Your task to perform on an android device: toggle javascript in the chrome app Image 0: 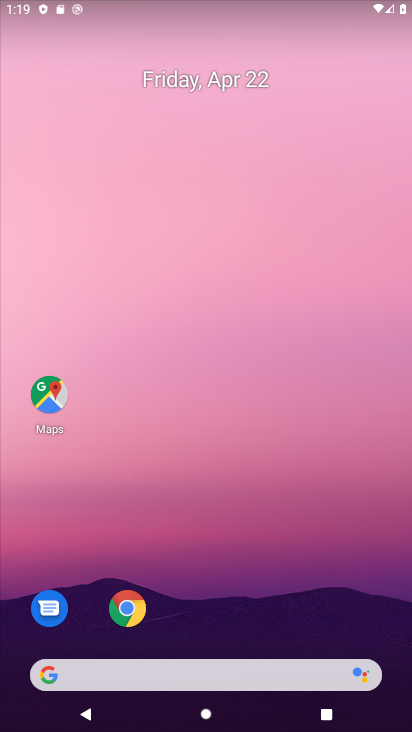
Step 0: drag from (272, 695) to (366, 210)
Your task to perform on an android device: toggle javascript in the chrome app Image 1: 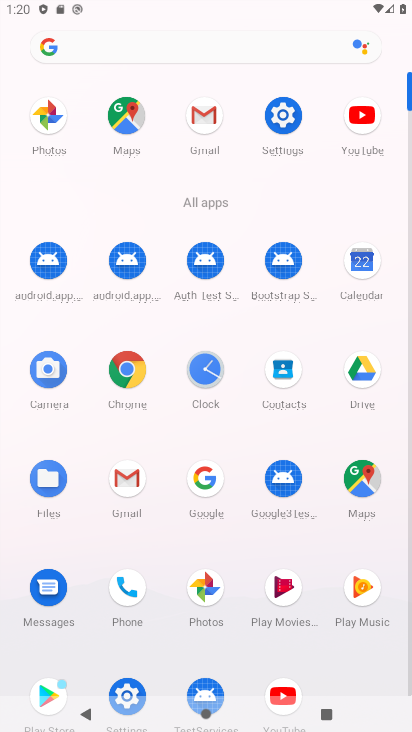
Step 1: click (127, 361)
Your task to perform on an android device: toggle javascript in the chrome app Image 2: 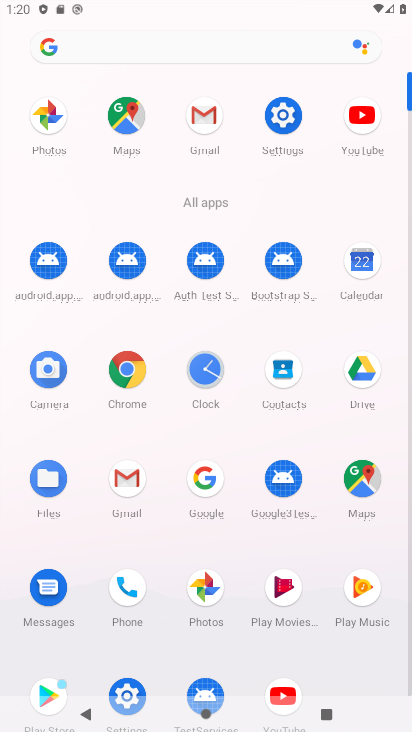
Step 2: click (120, 365)
Your task to perform on an android device: toggle javascript in the chrome app Image 3: 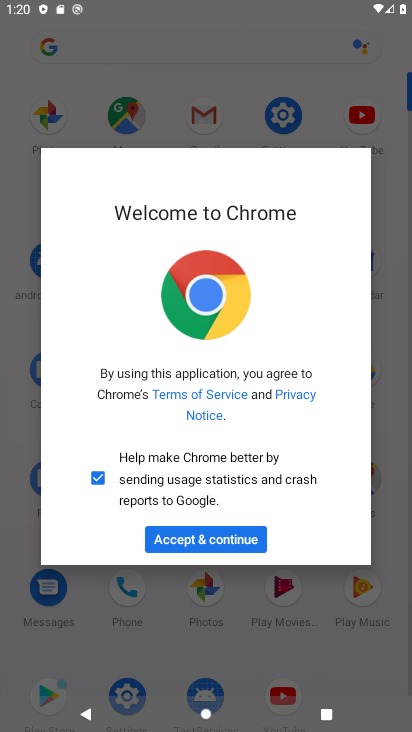
Step 3: click (190, 544)
Your task to perform on an android device: toggle javascript in the chrome app Image 4: 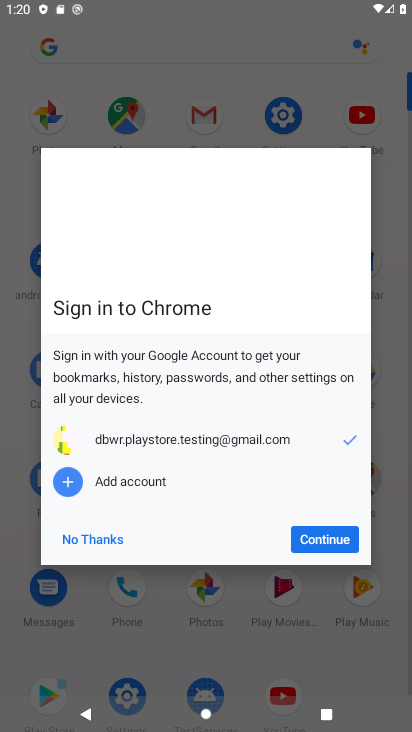
Step 4: click (321, 534)
Your task to perform on an android device: toggle javascript in the chrome app Image 5: 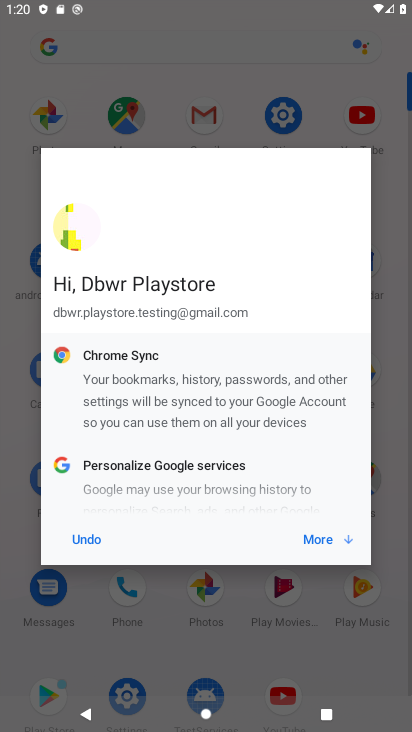
Step 5: click (329, 535)
Your task to perform on an android device: toggle javascript in the chrome app Image 6: 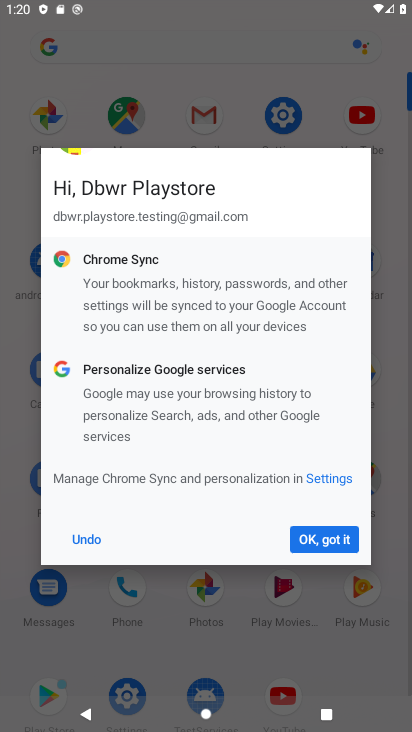
Step 6: click (329, 535)
Your task to perform on an android device: toggle javascript in the chrome app Image 7: 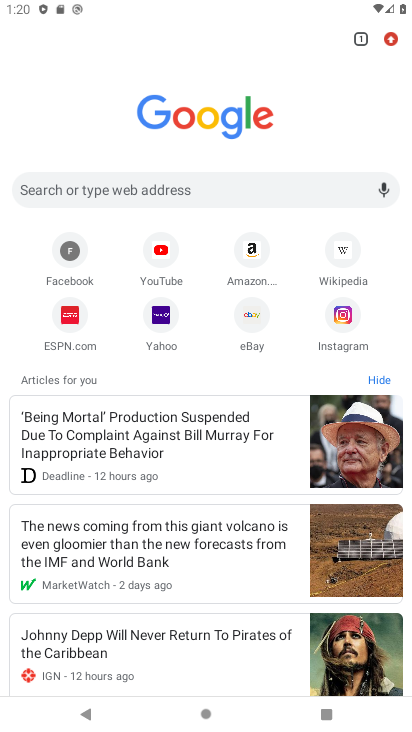
Step 7: click (394, 45)
Your task to perform on an android device: toggle javascript in the chrome app Image 8: 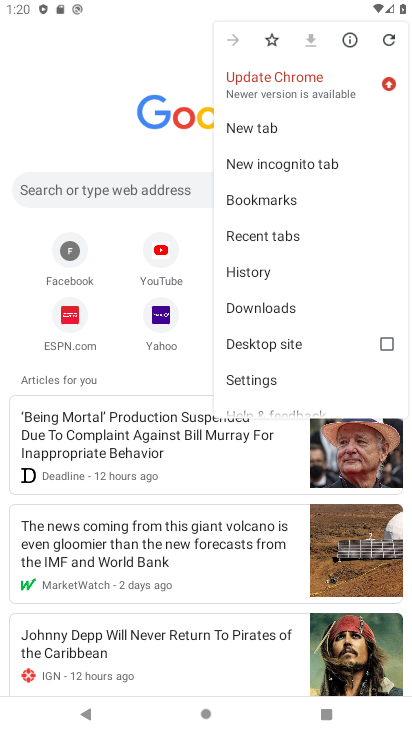
Step 8: click (237, 379)
Your task to perform on an android device: toggle javascript in the chrome app Image 9: 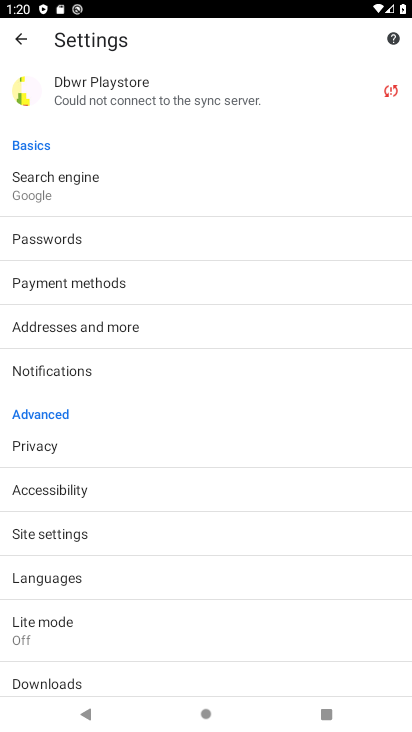
Step 9: click (92, 536)
Your task to perform on an android device: toggle javascript in the chrome app Image 10: 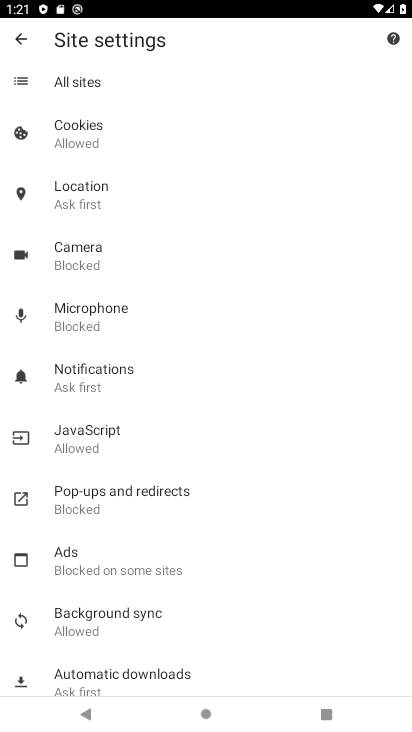
Step 10: click (110, 427)
Your task to perform on an android device: toggle javascript in the chrome app Image 11: 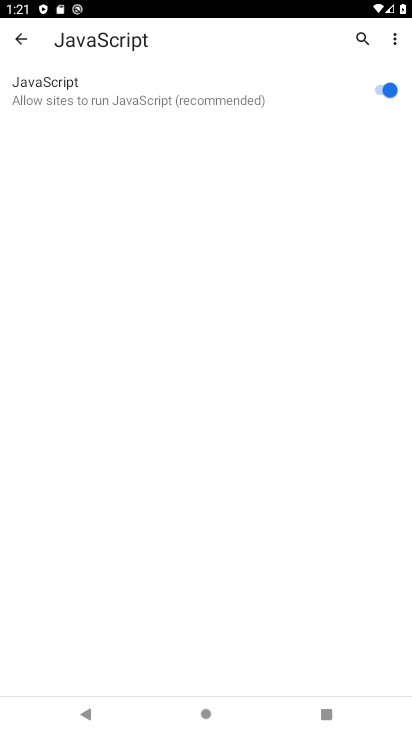
Step 11: task complete